Your task to perform on an android device: set default search engine in the chrome app Image 0: 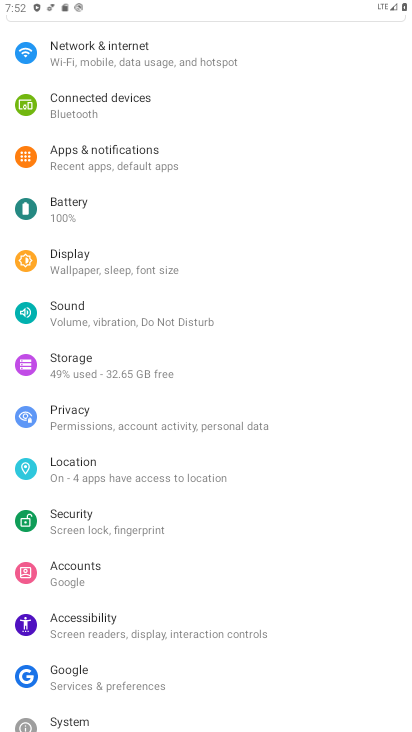
Step 0: press home button
Your task to perform on an android device: set default search engine in the chrome app Image 1: 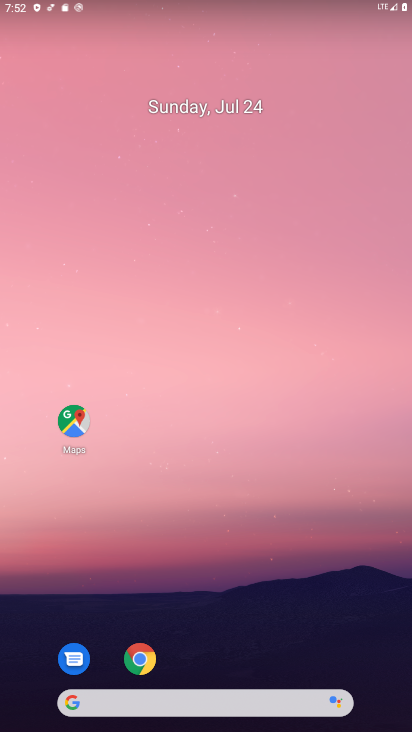
Step 1: click (143, 657)
Your task to perform on an android device: set default search engine in the chrome app Image 2: 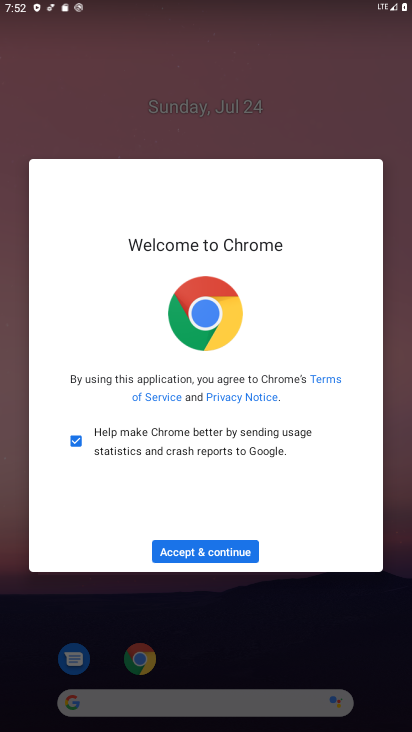
Step 2: click (218, 554)
Your task to perform on an android device: set default search engine in the chrome app Image 3: 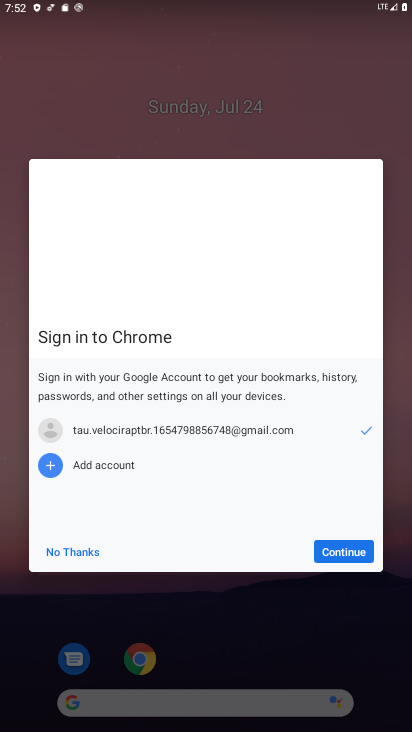
Step 3: click (368, 547)
Your task to perform on an android device: set default search engine in the chrome app Image 4: 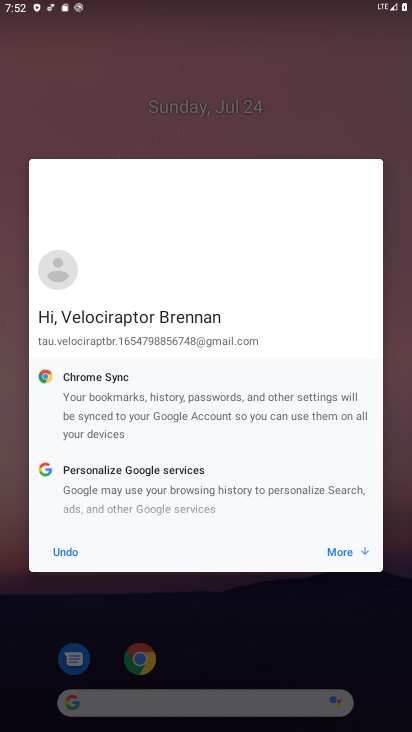
Step 4: click (332, 551)
Your task to perform on an android device: set default search engine in the chrome app Image 5: 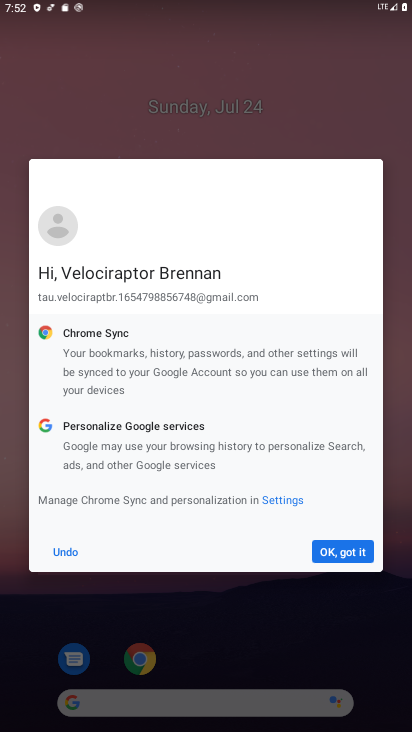
Step 5: click (332, 552)
Your task to perform on an android device: set default search engine in the chrome app Image 6: 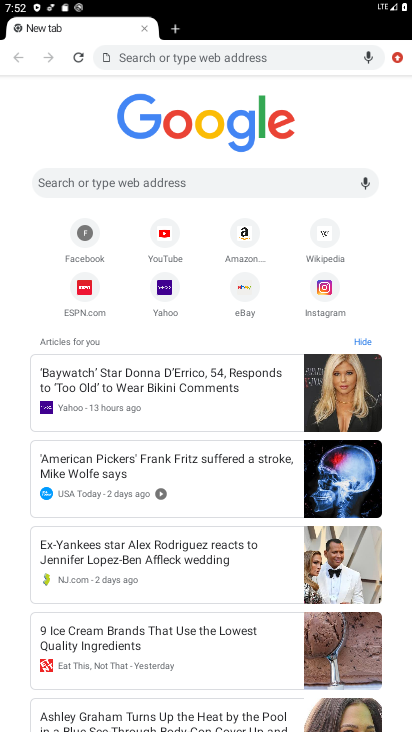
Step 6: click (399, 61)
Your task to perform on an android device: set default search engine in the chrome app Image 7: 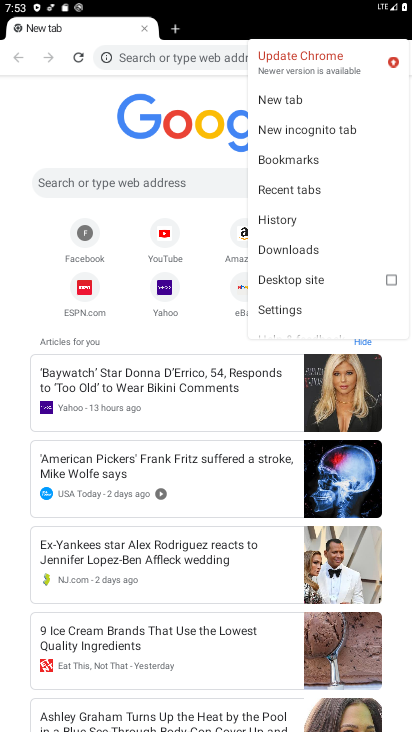
Step 7: click (278, 304)
Your task to perform on an android device: set default search engine in the chrome app Image 8: 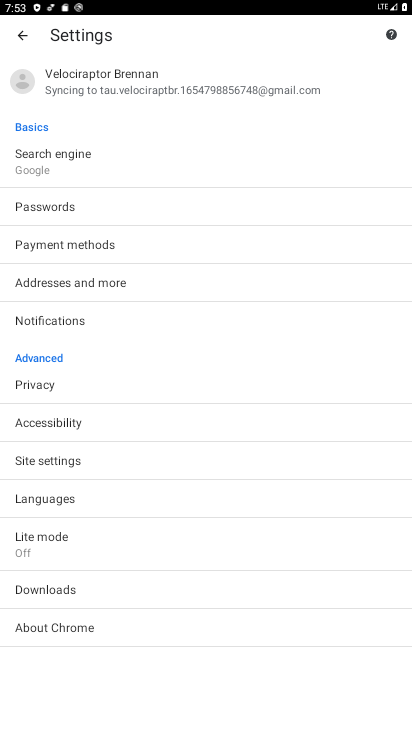
Step 8: click (56, 159)
Your task to perform on an android device: set default search engine in the chrome app Image 9: 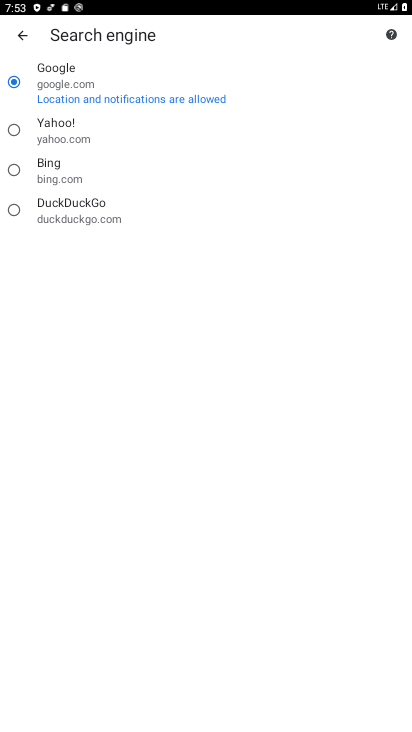
Step 9: click (16, 125)
Your task to perform on an android device: set default search engine in the chrome app Image 10: 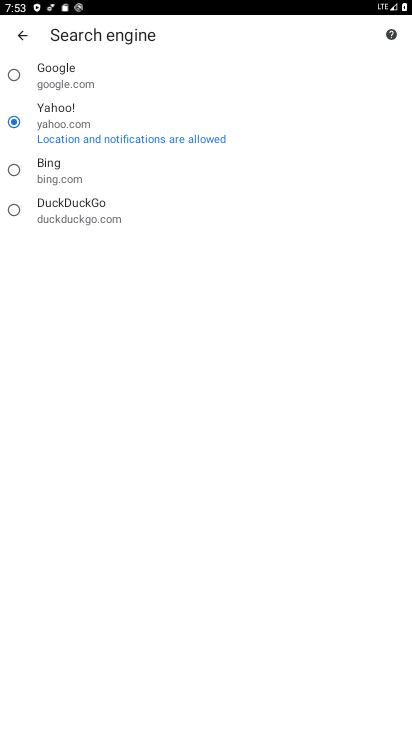
Step 10: task complete